Your task to perform on an android device: search for starred emails in the gmail app Image 0: 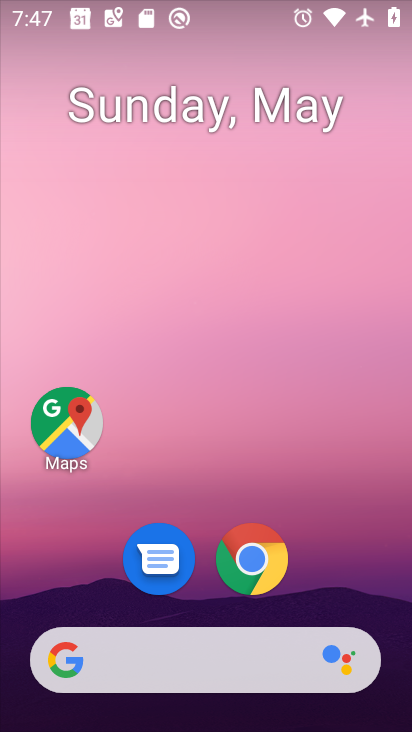
Step 0: press home button
Your task to perform on an android device: search for starred emails in the gmail app Image 1: 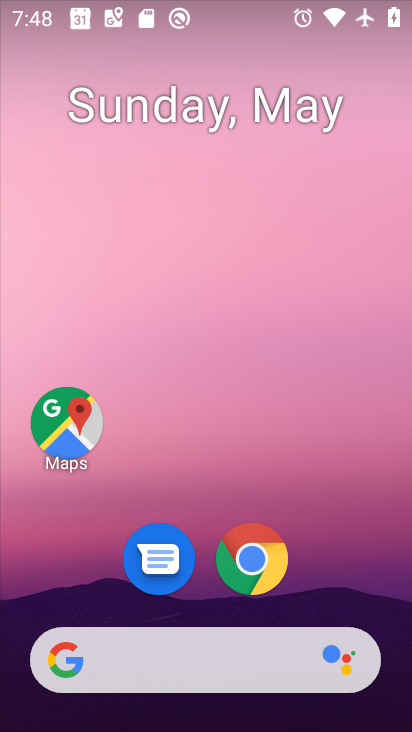
Step 1: drag from (183, 661) to (318, 152)
Your task to perform on an android device: search for starred emails in the gmail app Image 2: 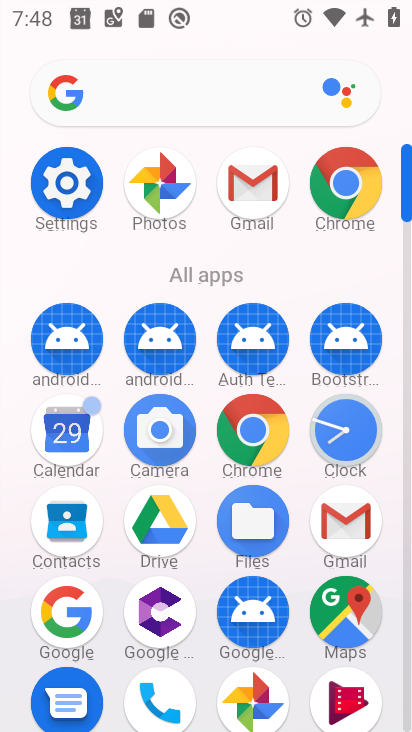
Step 2: click (257, 200)
Your task to perform on an android device: search for starred emails in the gmail app Image 3: 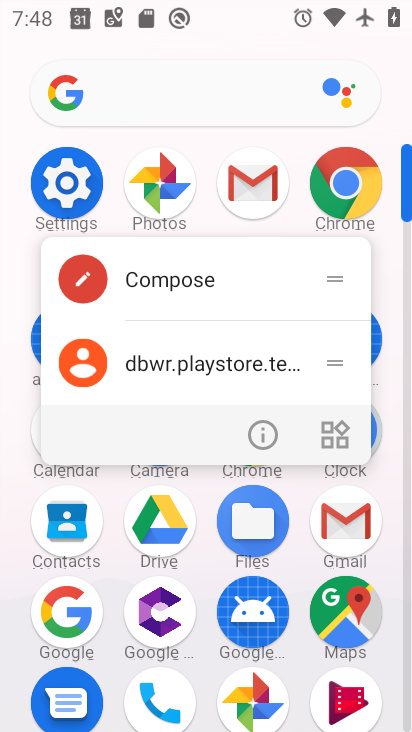
Step 3: click (264, 181)
Your task to perform on an android device: search for starred emails in the gmail app Image 4: 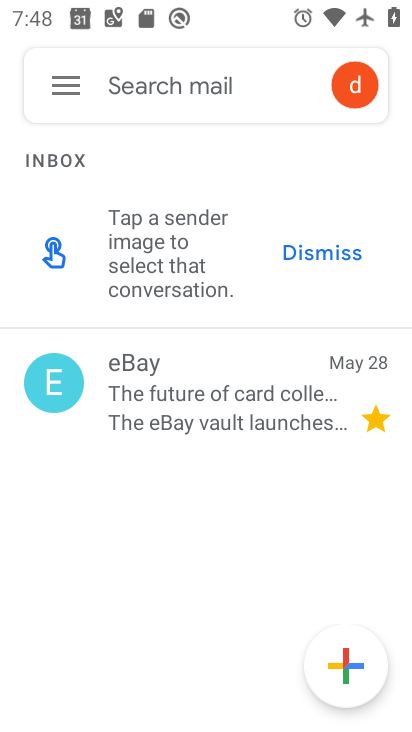
Step 4: click (73, 89)
Your task to perform on an android device: search for starred emails in the gmail app Image 5: 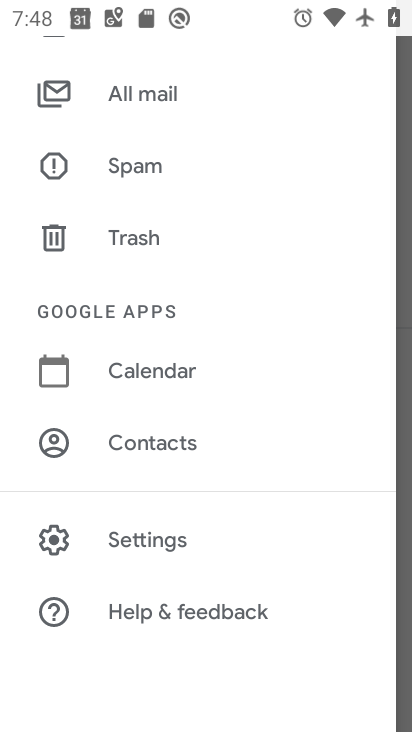
Step 5: drag from (274, 118) to (208, 585)
Your task to perform on an android device: search for starred emails in the gmail app Image 6: 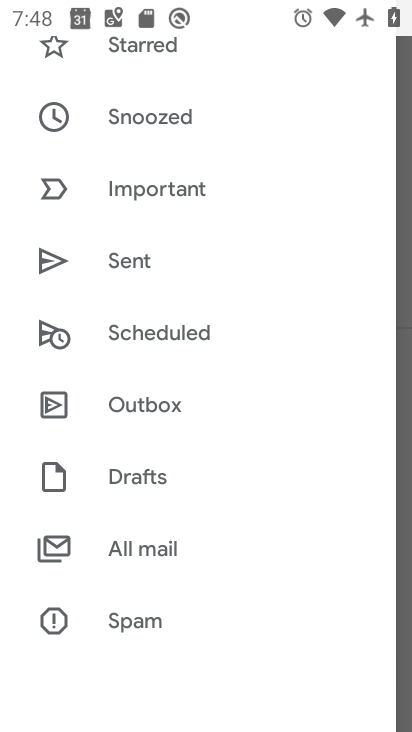
Step 6: drag from (251, 173) to (221, 480)
Your task to perform on an android device: search for starred emails in the gmail app Image 7: 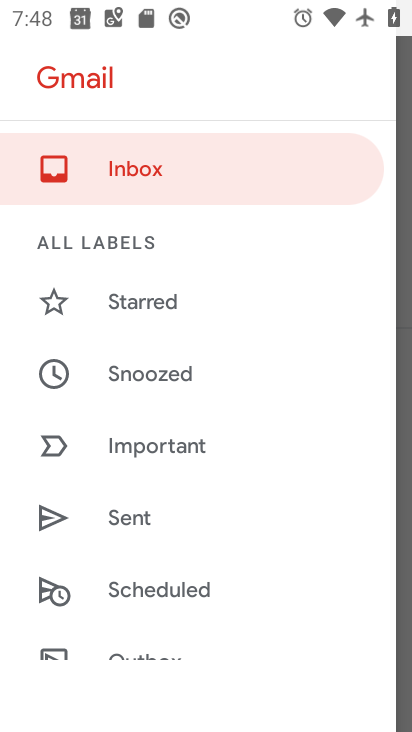
Step 7: click (159, 303)
Your task to perform on an android device: search for starred emails in the gmail app Image 8: 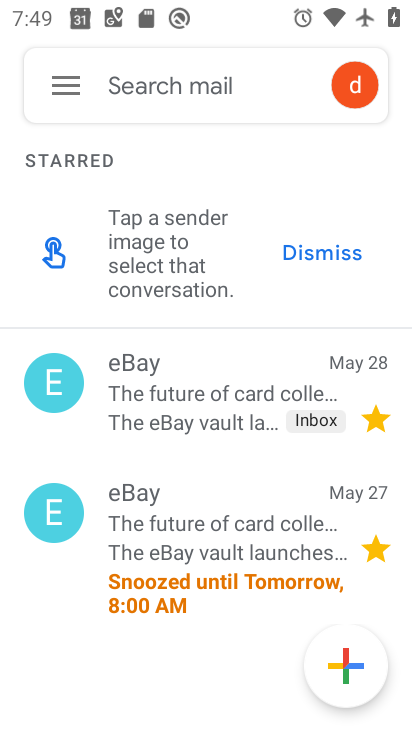
Step 8: task complete